Your task to perform on an android device: Do I have any events tomorrow? Image 0: 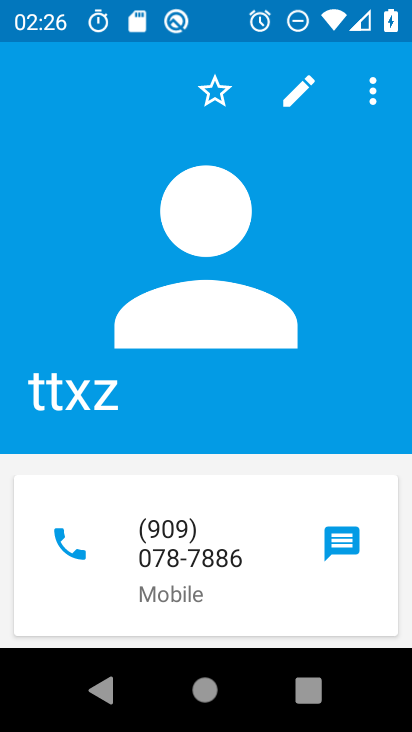
Step 0: press home button
Your task to perform on an android device: Do I have any events tomorrow? Image 1: 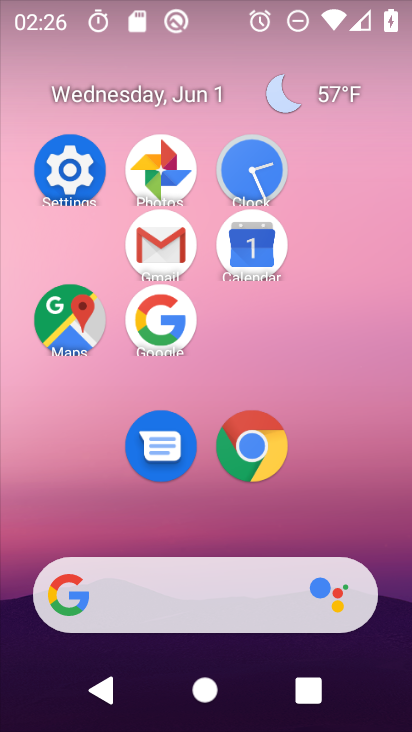
Step 1: click (252, 234)
Your task to perform on an android device: Do I have any events tomorrow? Image 2: 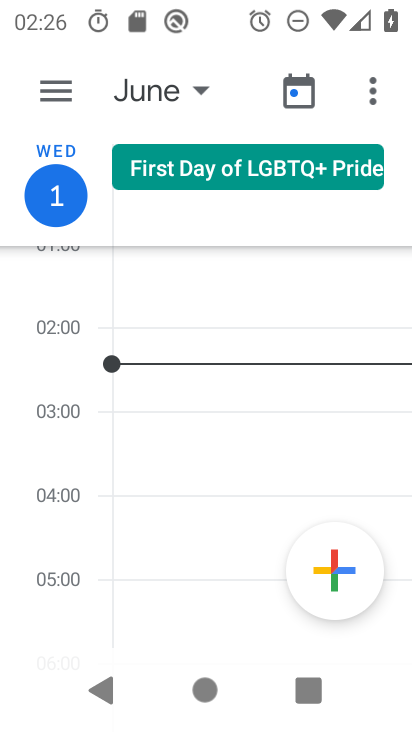
Step 2: click (185, 85)
Your task to perform on an android device: Do I have any events tomorrow? Image 3: 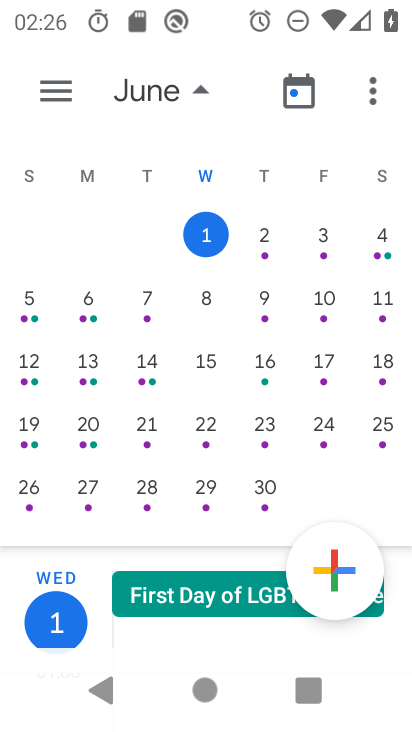
Step 3: click (267, 243)
Your task to perform on an android device: Do I have any events tomorrow? Image 4: 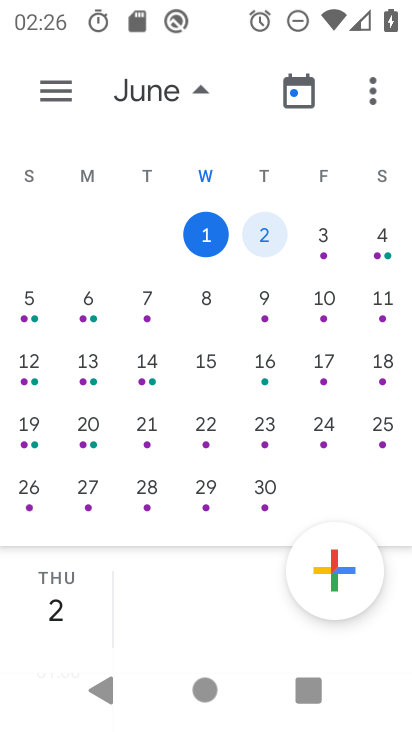
Step 4: click (70, 603)
Your task to perform on an android device: Do I have any events tomorrow? Image 5: 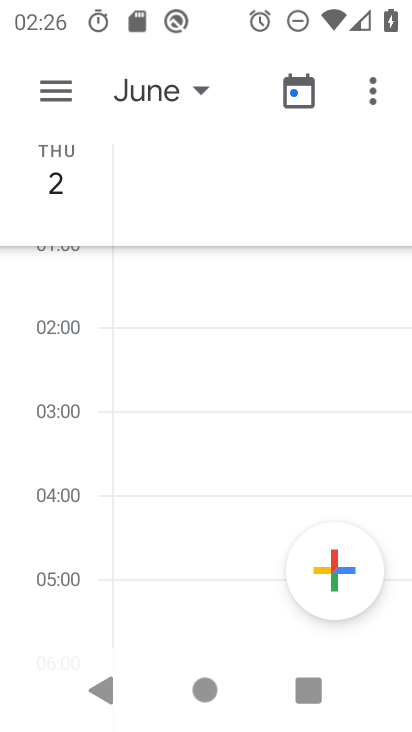
Step 5: task complete